Your task to perform on an android device: toggle improve location accuracy Image 0: 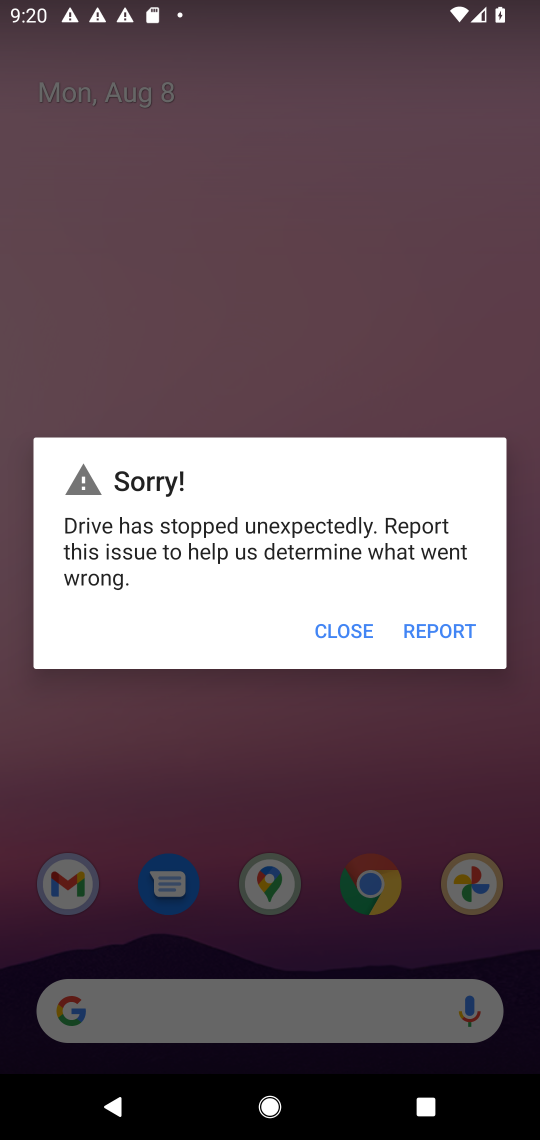
Step 0: press home button
Your task to perform on an android device: toggle improve location accuracy Image 1: 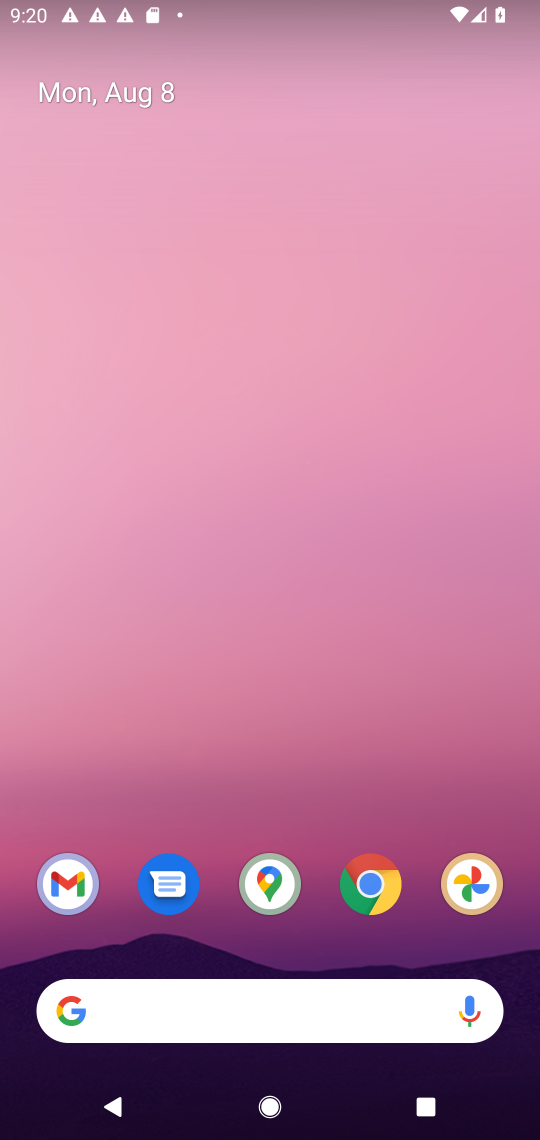
Step 1: drag from (326, 789) to (312, 189)
Your task to perform on an android device: toggle improve location accuracy Image 2: 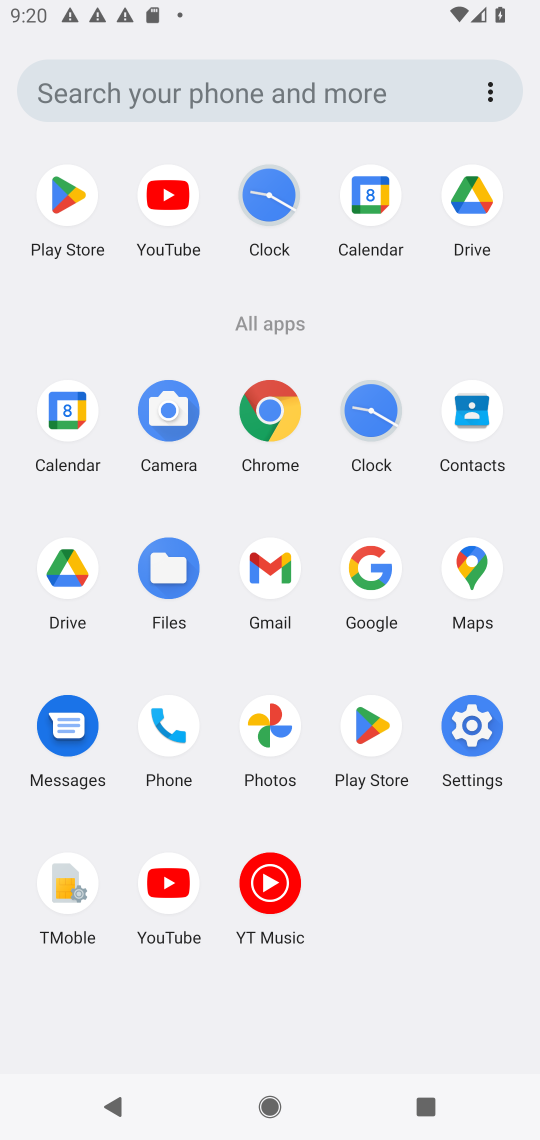
Step 2: click (473, 720)
Your task to perform on an android device: toggle improve location accuracy Image 3: 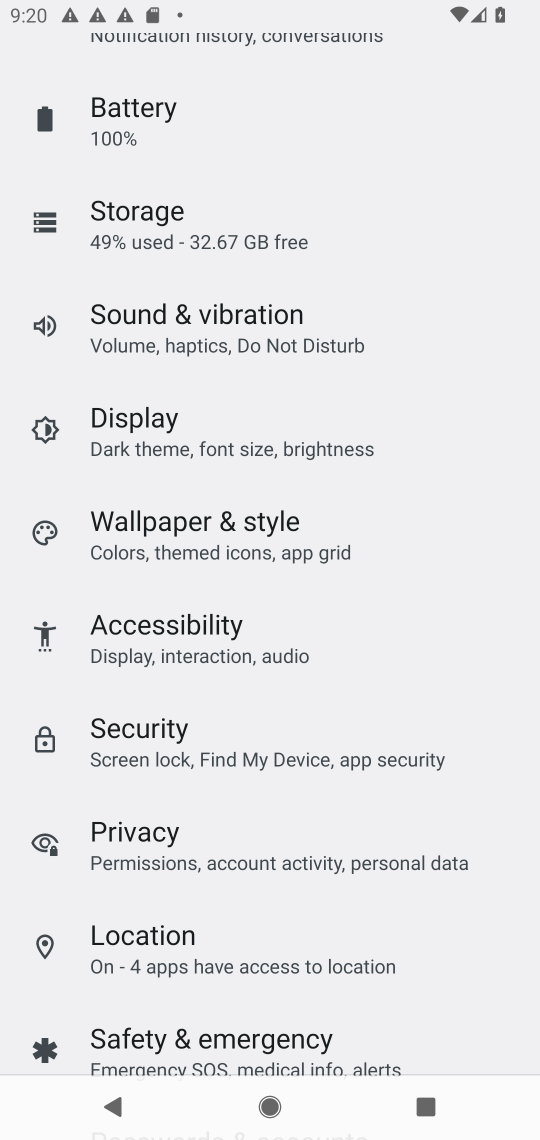
Step 3: click (173, 938)
Your task to perform on an android device: toggle improve location accuracy Image 4: 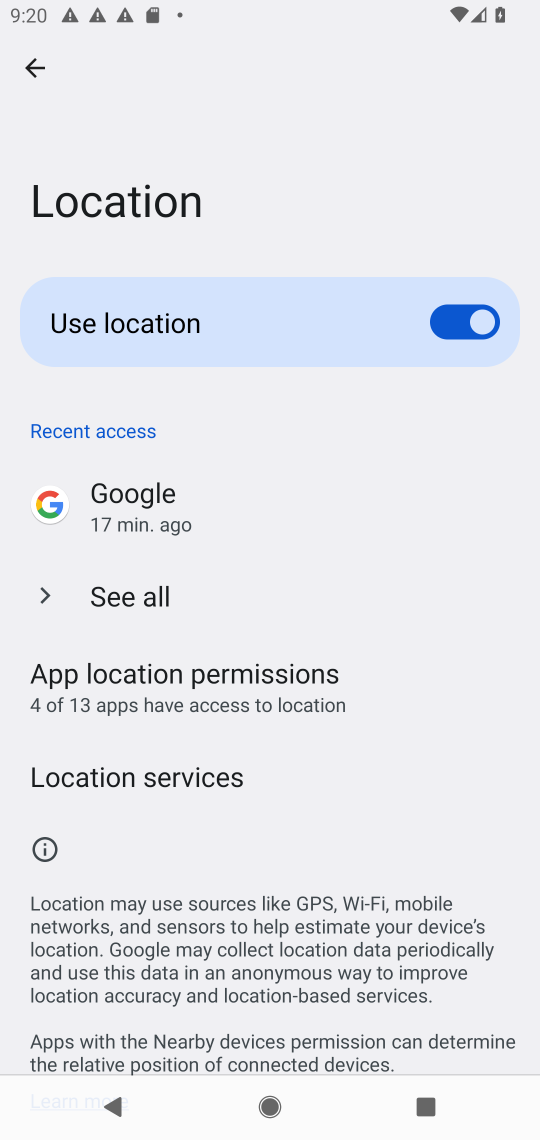
Step 4: click (138, 775)
Your task to perform on an android device: toggle improve location accuracy Image 5: 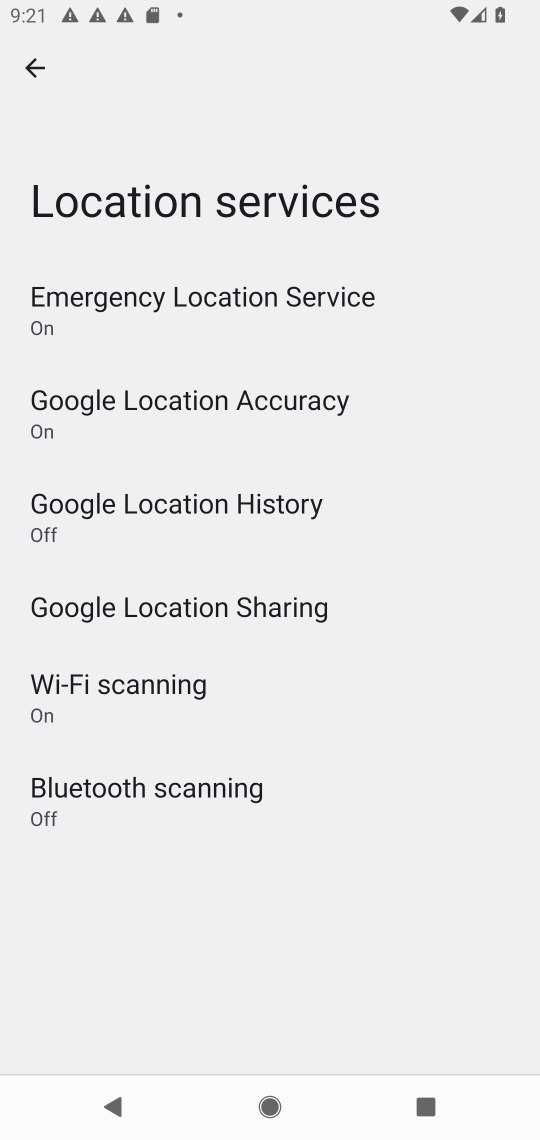
Step 5: click (212, 401)
Your task to perform on an android device: toggle improve location accuracy Image 6: 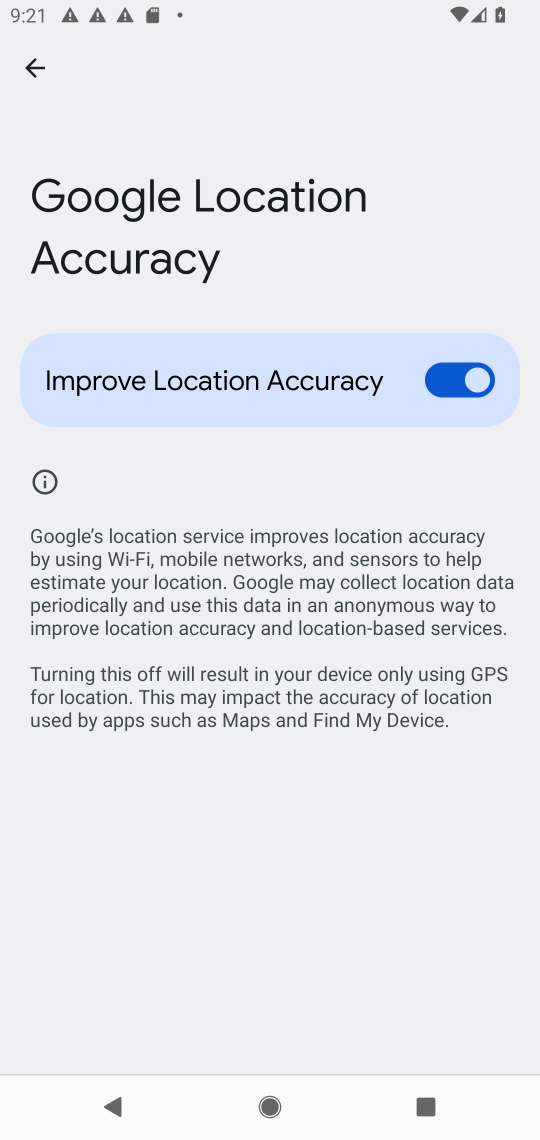
Step 6: click (471, 375)
Your task to perform on an android device: toggle improve location accuracy Image 7: 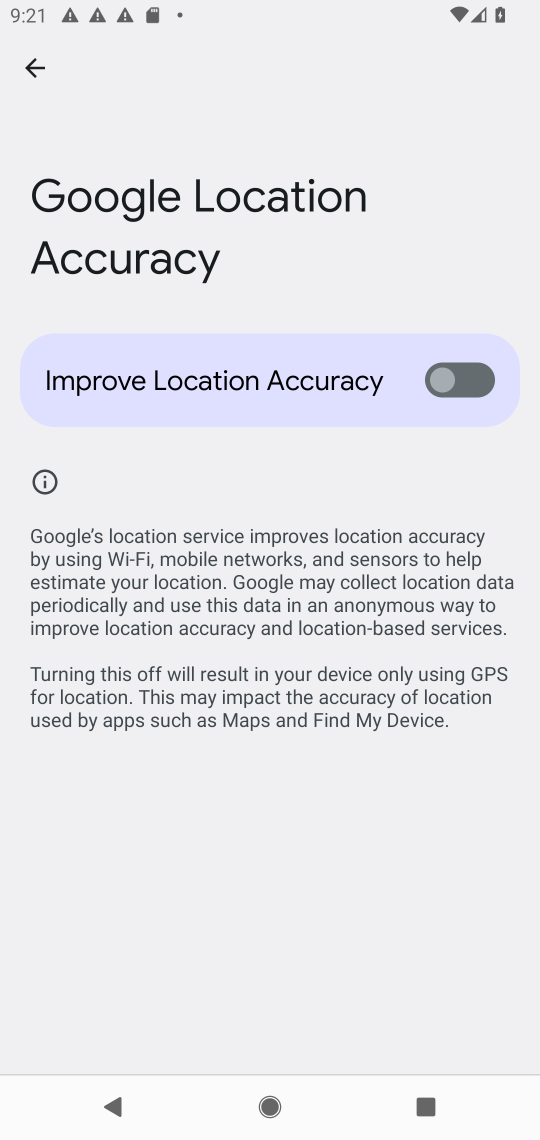
Step 7: task complete